Your task to perform on an android device: turn vacation reply on in the gmail app Image 0: 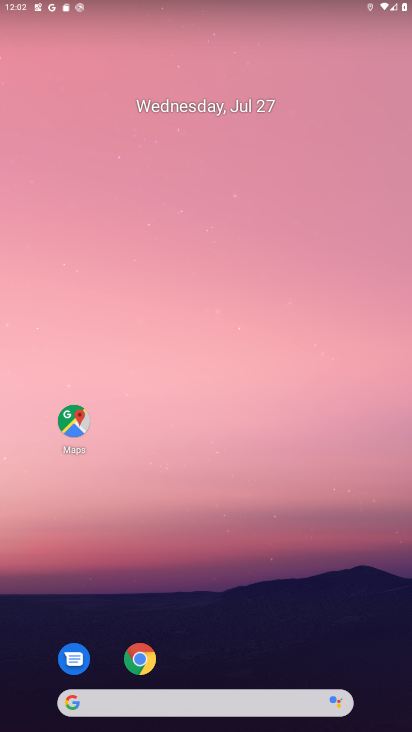
Step 0: drag from (196, 705) to (264, 85)
Your task to perform on an android device: turn vacation reply on in the gmail app Image 1: 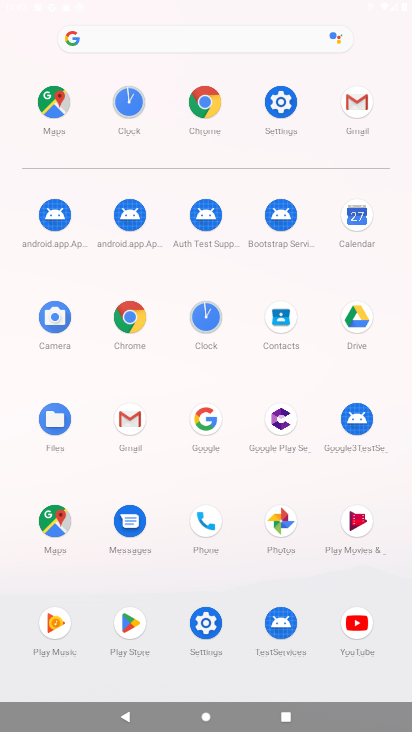
Step 1: click (130, 421)
Your task to perform on an android device: turn vacation reply on in the gmail app Image 2: 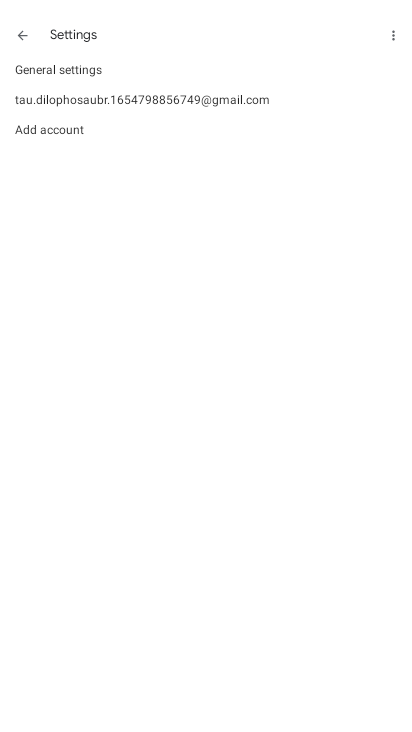
Step 2: click (186, 97)
Your task to perform on an android device: turn vacation reply on in the gmail app Image 3: 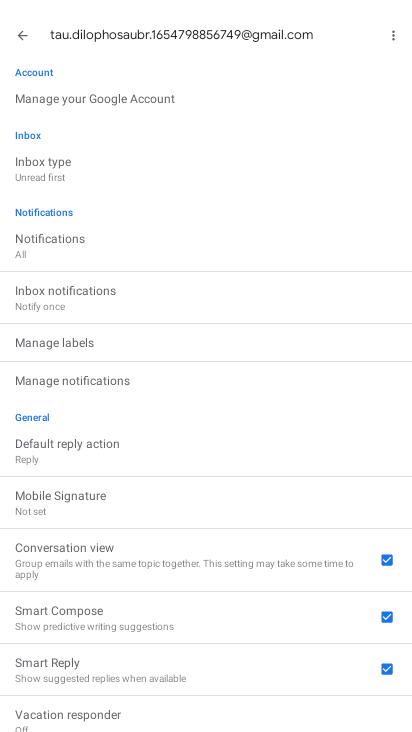
Step 3: drag from (133, 674) to (164, 364)
Your task to perform on an android device: turn vacation reply on in the gmail app Image 4: 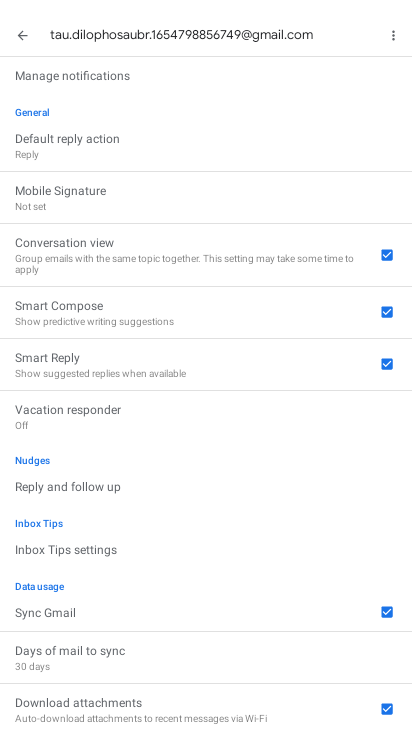
Step 4: click (123, 408)
Your task to perform on an android device: turn vacation reply on in the gmail app Image 5: 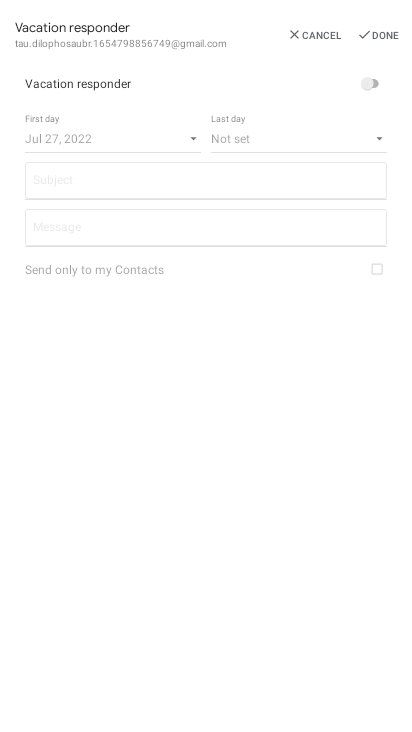
Step 5: click (371, 84)
Your task to perform on an android device: turn vacation reply on in the gmail app Image 6: 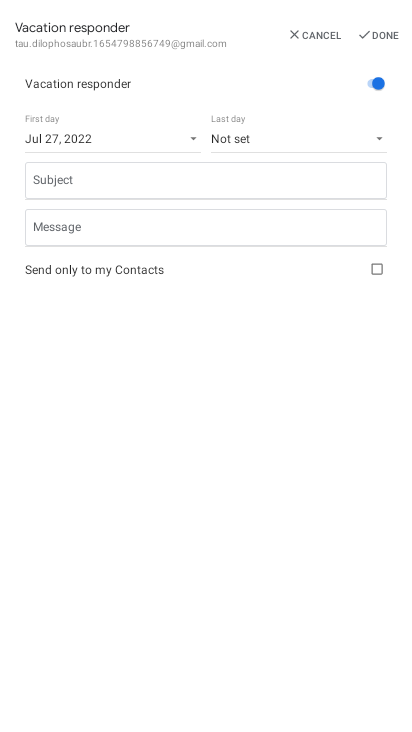
Step 6: click (385, 30)
Your task to perform on an android device: turn vacation reply on in the gmail app Image 7: 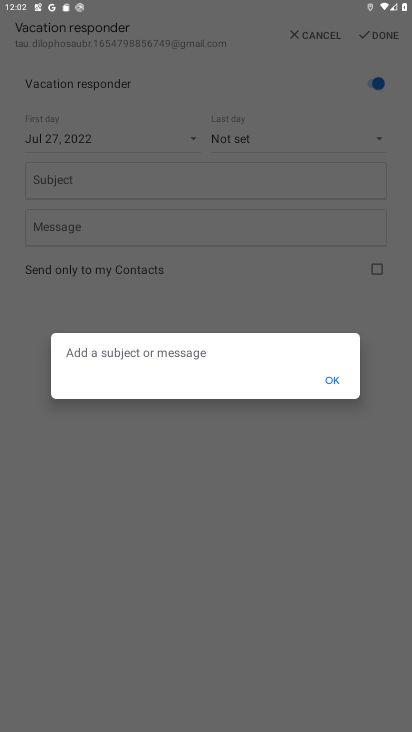
Step 7: task complete